Your task to perform on an android device: turn off sleep mode Image 0: 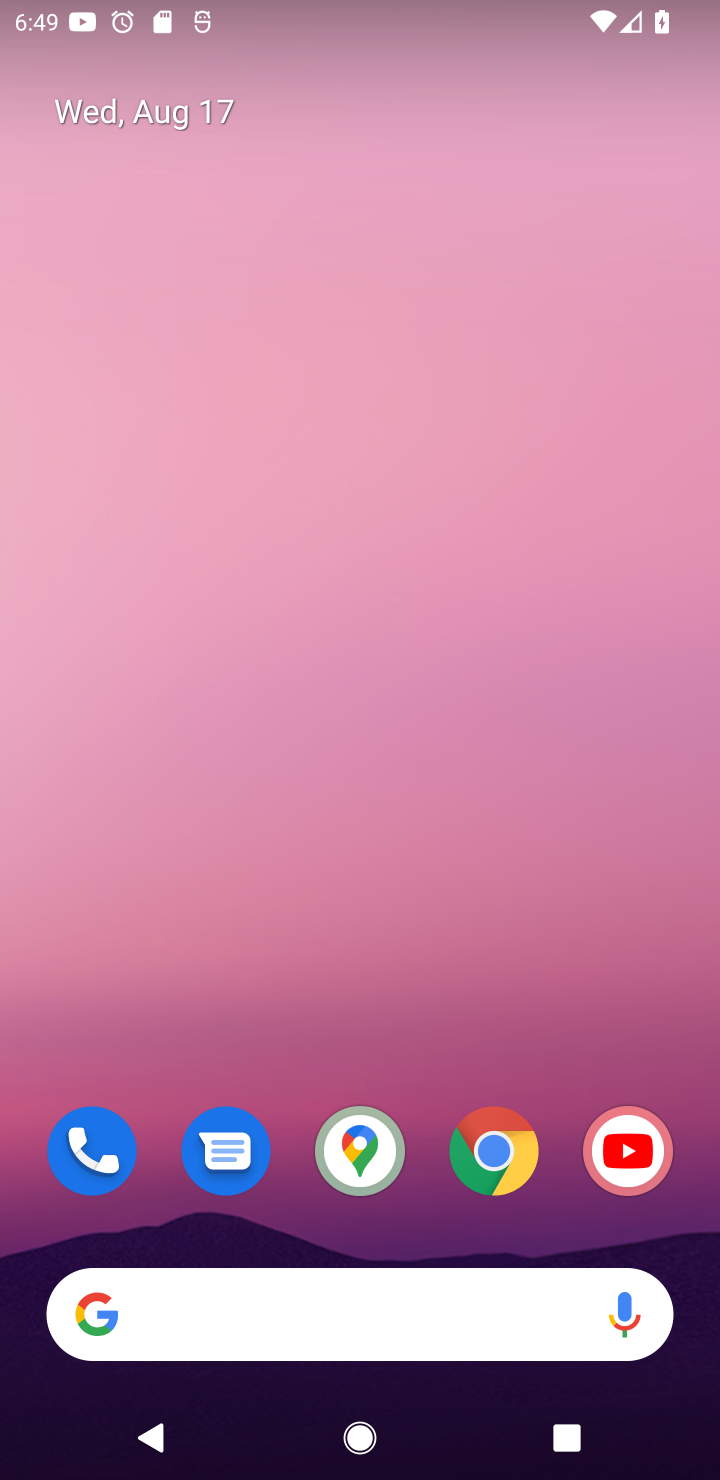
Step 0: drag from (448, 1248) to (198, 183)
Your task to perform on an android device: turn off sleep mode Image 1: 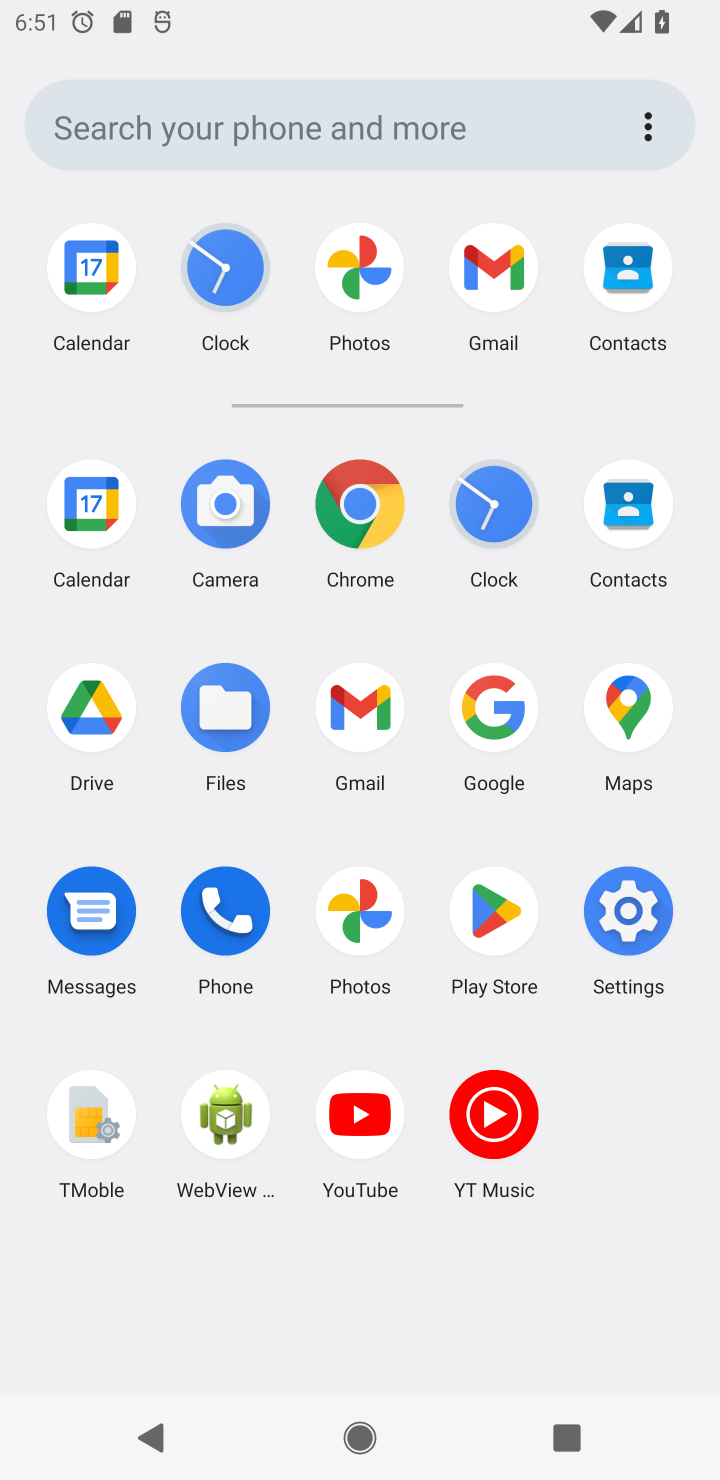
Step 1: click (664, 937)
Your task to perform on an android device: turn off sleep mode Image 2: 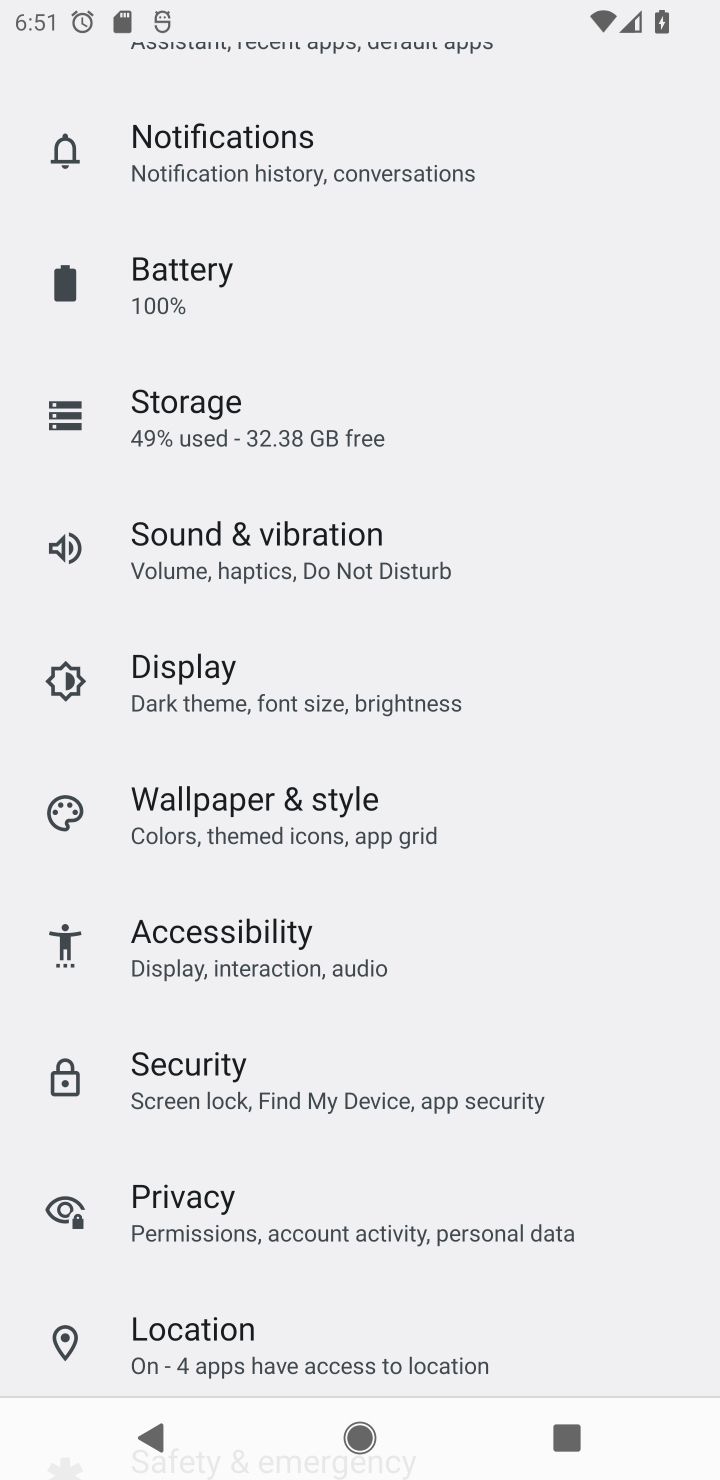
Step 2: task complete